Your task to perform on an android device: Open Yahoo.com Image 0: 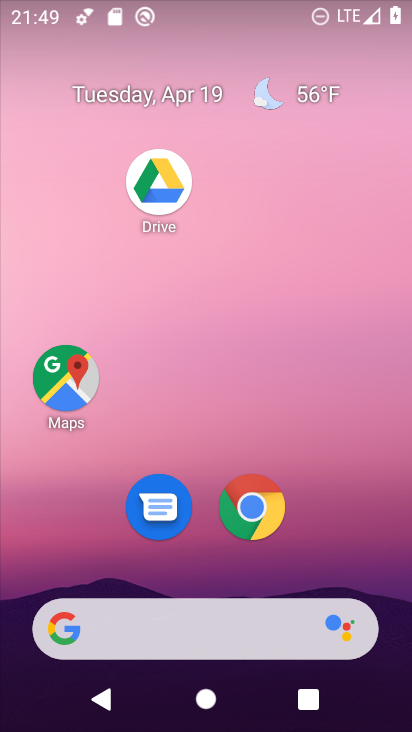
Step 0: click (251, 629)
Your task to perform on an android device: Open Yahoo.com Image 1: 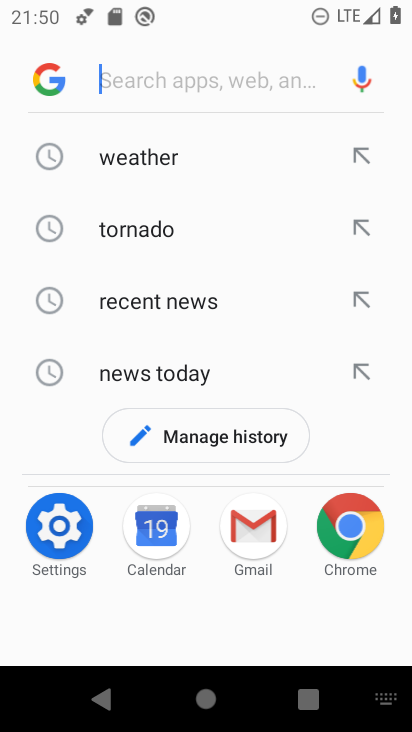
Step 1: type "yahoo.com"
Your task to perform on an android device: Open Yahoo.com Image 2: 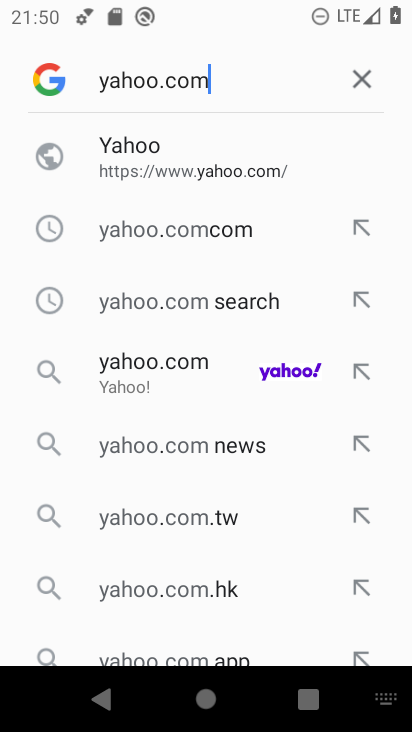
Step 2: click (241, 168)
Your task to perform on an android device: Open Yahoo.com Image 3: 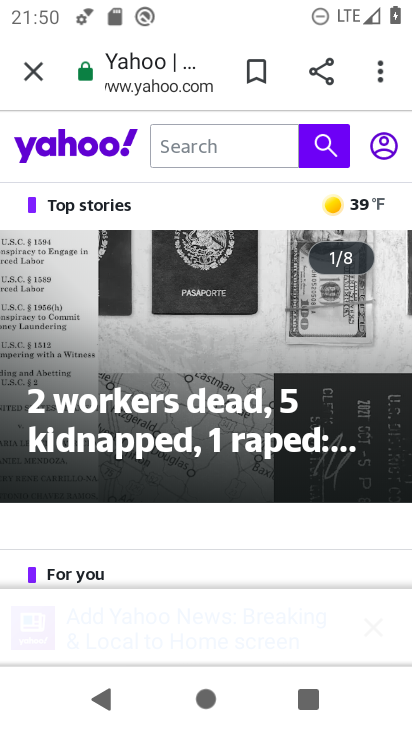
Step 3: task complete